Your task to perform on an android device: Open Chrome and go to settings Image 0: 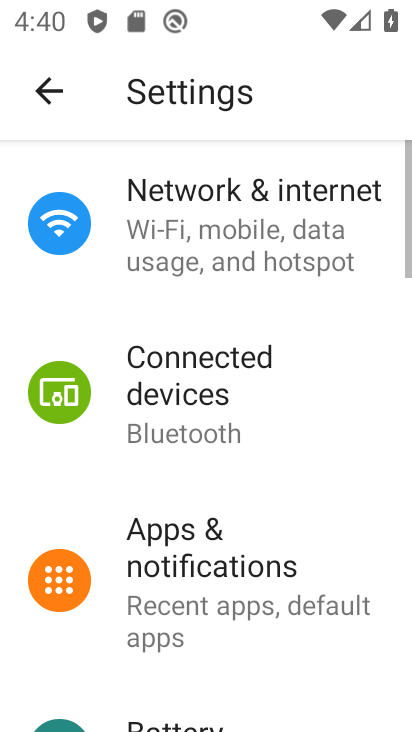
Step 0: press home button
Your task to perform on an android device: Open Chrome and go to settings Image 1: 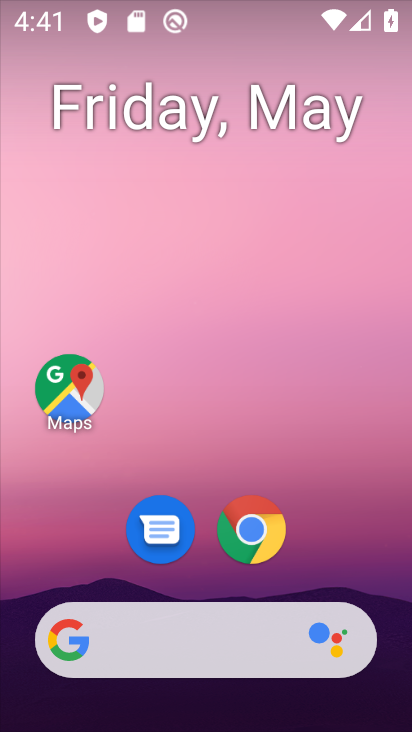
Step 1: drag from (319, 503) to (363, 184)
Your task to perform on an android device: Open Chrome and go to settings Image 2: 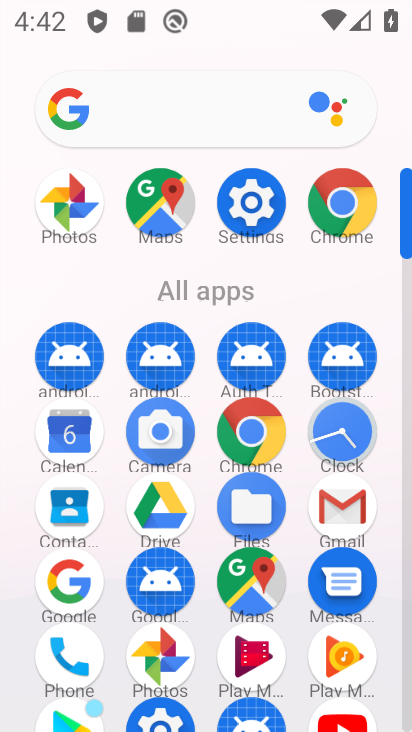
Step 2: click (402, 668)
Your task to perform on an android device: Open Chrome and go to settings Image 3: 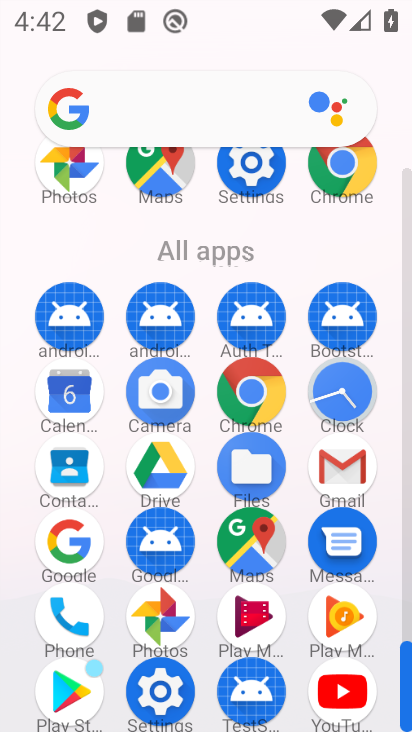
Step 3: drag from (397, 686) to (299, 731)
Your task to perform on an android device: Open Chrome and go to settings Image 4: 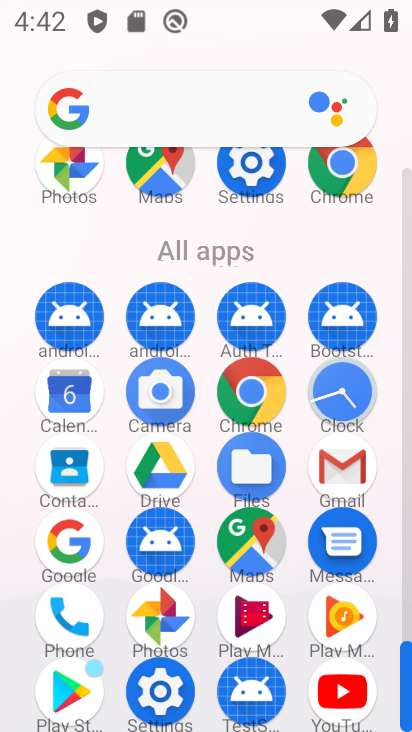
Step 4: click (366, 162)
Your task to perform on an android device: Open Chrome and go to settings Image 5: 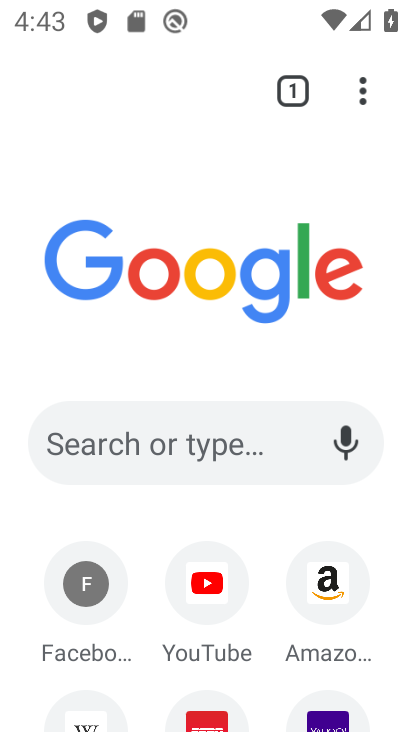
Step 5: click (367, 89)
Your task to perform on an android device: Open Chrome and go to settings Image 6: 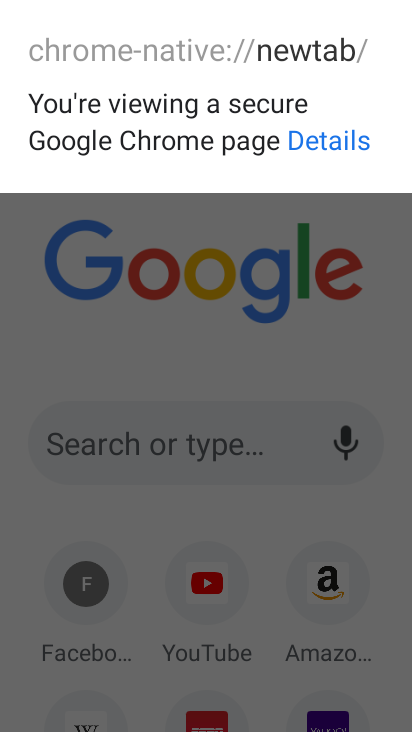
Step 6: drag from (367, 89) to (317, 300)
Your task to perform on an android device: Open Chrome and go to settings Image 7: 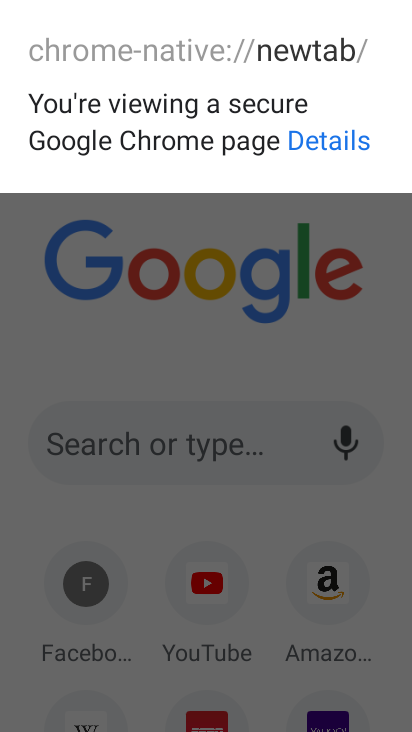
Step 7: click (317, 300)
Your task to perform on an android device: Open Chrome and go to settings Image 8: 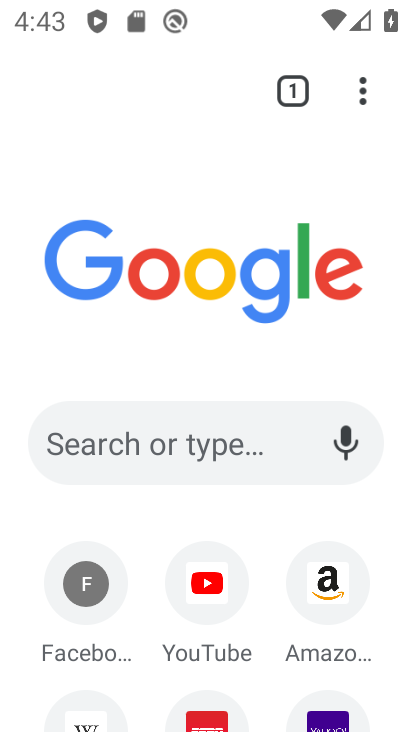
Step 8: task complete